Your task to perform on an android device: Open Google Chrome Image 0: 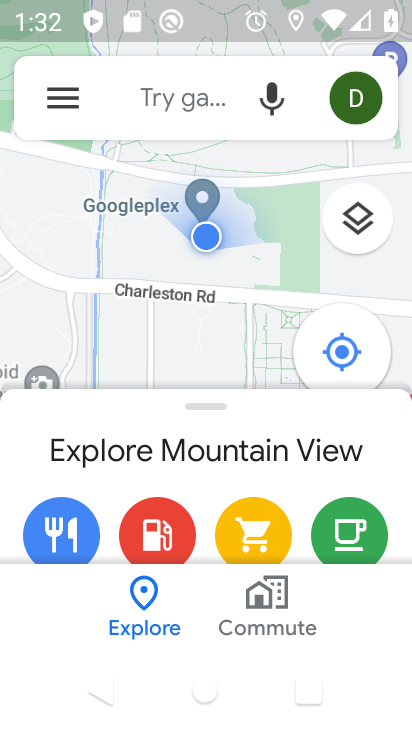
Step 0: press home button
Your task to perform on an android device: Open Google Chrome Image 1: 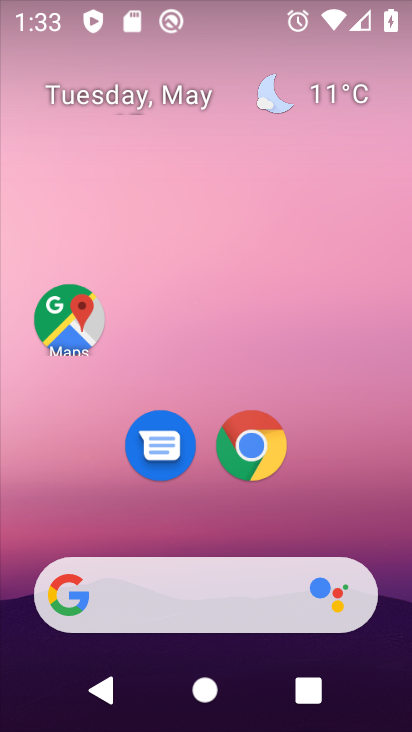
Step 1: click (268, 454)
Your task to perform on an android device: Open Google Chrome Image 2: 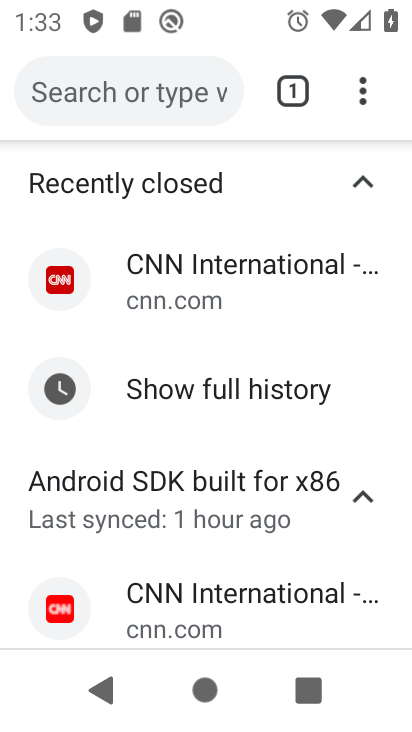
Step 2: click (303, 80)
Your task to perform on an android device: Open Google Chrome Image 3: 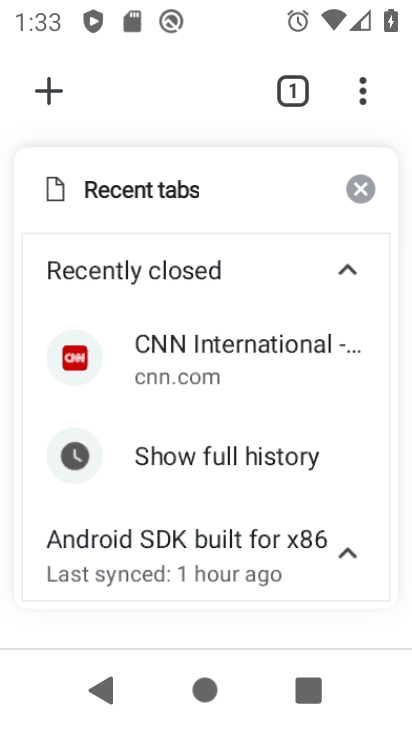
Step 3: click (366, 179)
Your task to perform on an android device: Open Google Chrome Image 4: 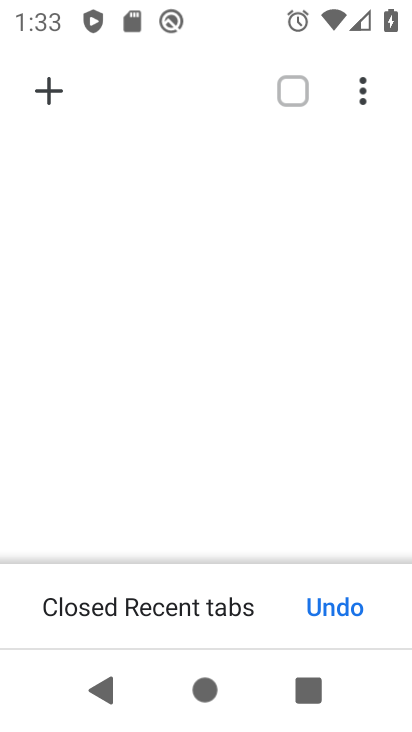
Step 4: click (58, 90)
Your task to perform on an android device: Open Google Chrome Image 5: 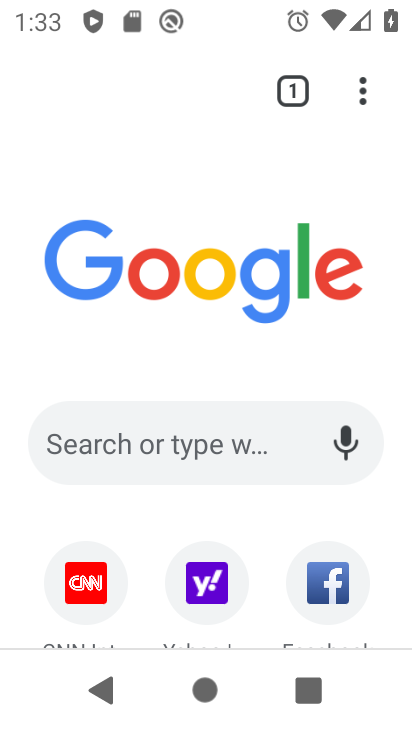
Step 5: task complete